Your task to perform on an android device: toggle priority inbox in the gmail app Image 0: 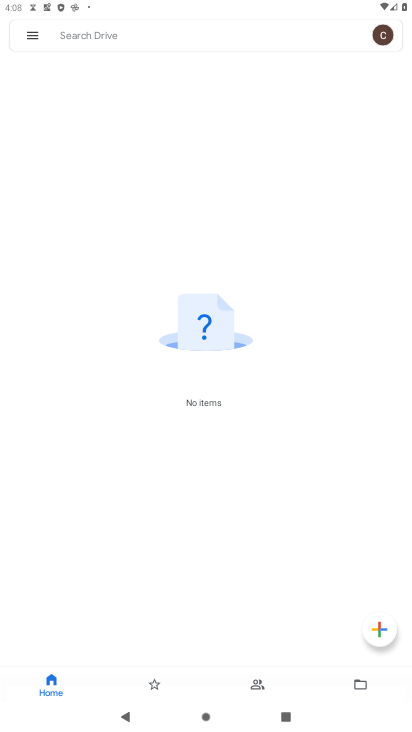
Step 0: press home button
Your task to perform on an android device: toggle priority inbox in the gmail app Image 1: 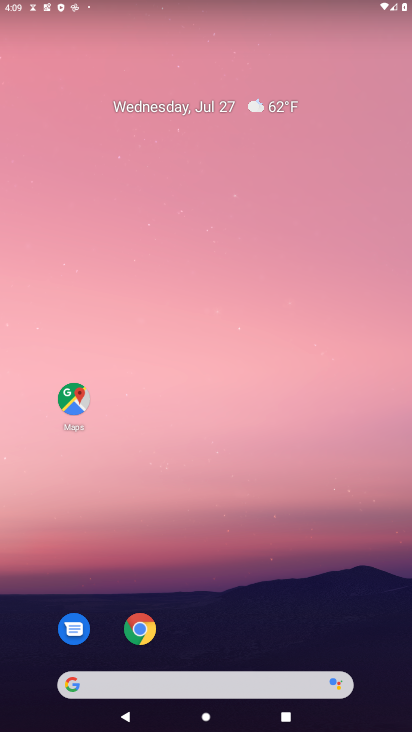
Step 1: drag from (218, 680) to (211, 34)
Your task to perform on an android device: toggle priority inbox in the gmail app Image 2: 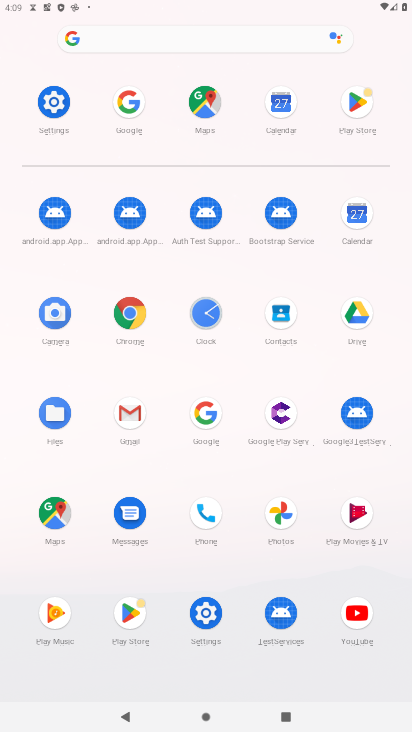
Step 2: click (131, 408)
Your task to perform on an android device: toggle priority inbox in the gmail app Image 3: 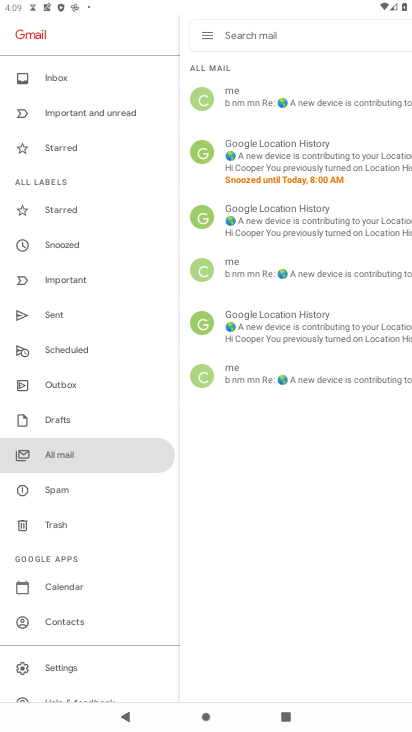
Step 3: click (71, 672)
Your task to perform on an android device: toggle priority inbox in the gmail app Image 4: 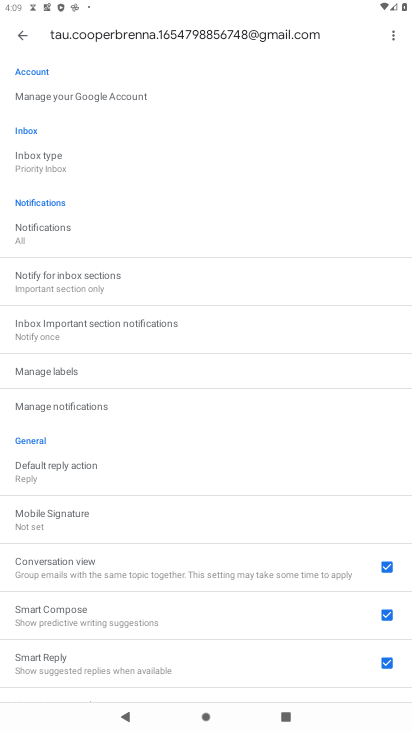
Step 4: click (30, 165)
Your task to perform on an android device: toggle priority inbox in the gmail app Image 5: 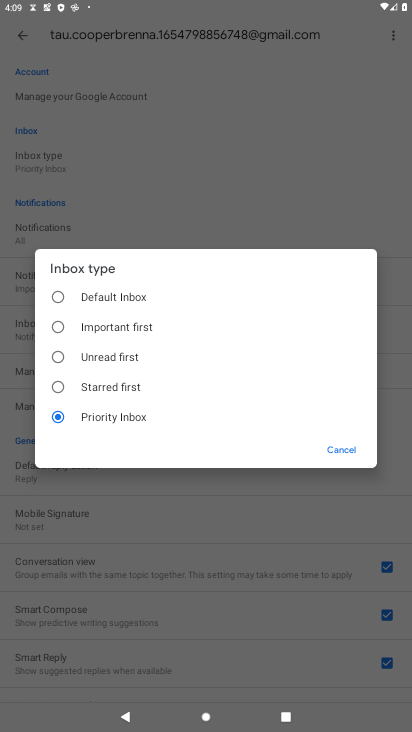
Step 5: click (58, 386)
Your task to perform on an android device: toggle priority inbox in the gmail app Image 6: 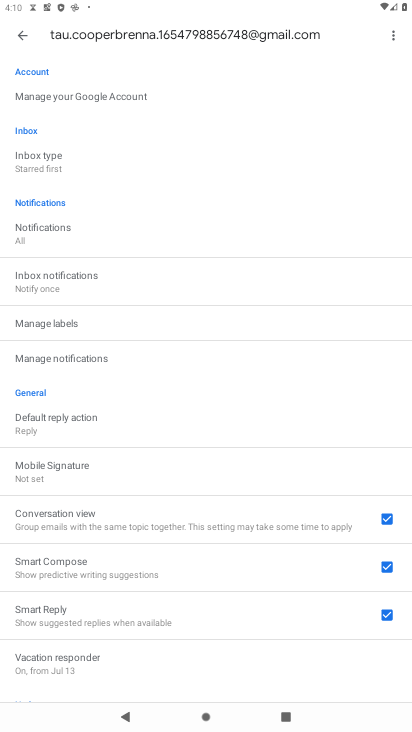
Step 6: task complete